Your task to perform on an android device: check out phone information Image 0: 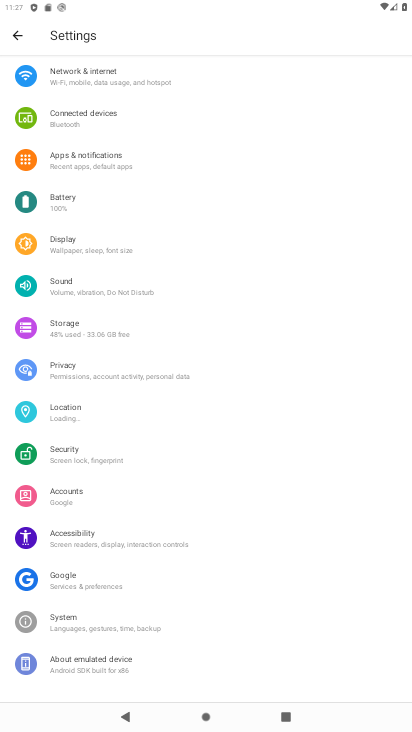
Step 0: click (82, 663)
Your task to perform on an android device: check out phone information Image 1: 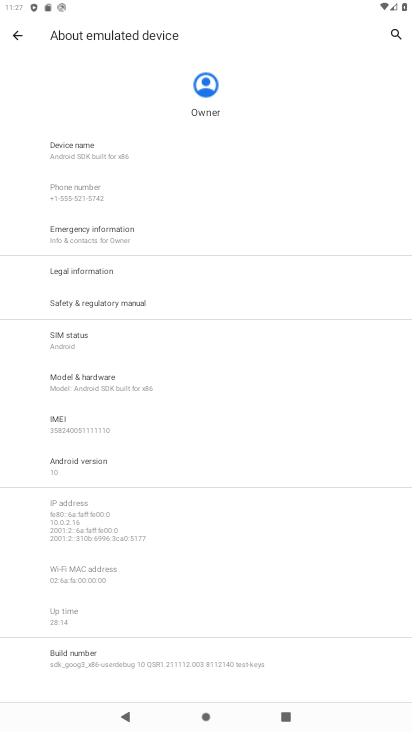
Step 1: click (128, 231)
Your task to perform on an android device: check out phone information Image 2: 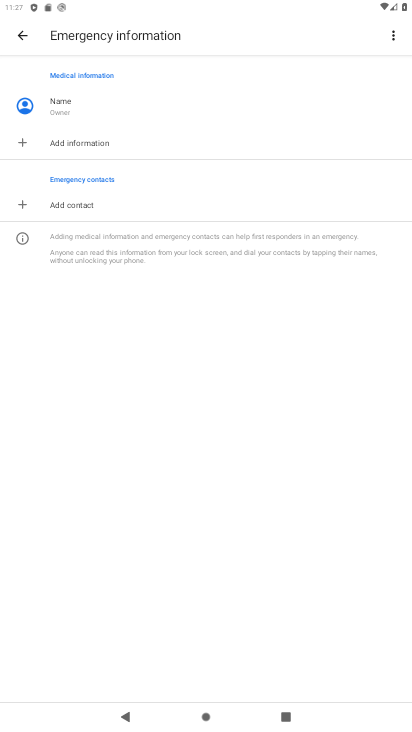
Step 2: task complete